Your task to perform on an android device: What's the weather today? Image 0: 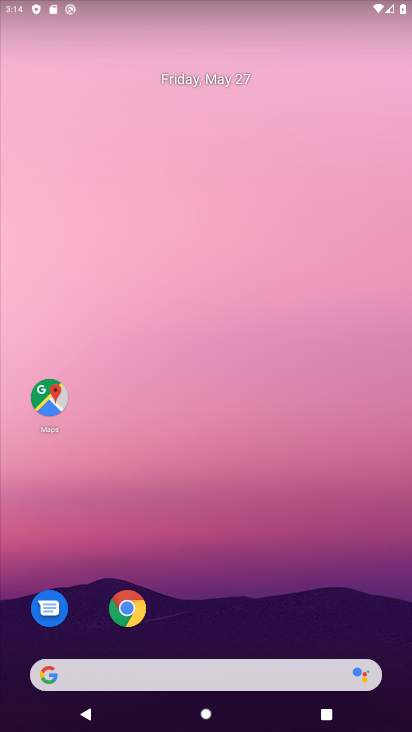
Step 0: drag from (213, 665) to (305, 270)
Your task to perform on an android device: What's the weather today? Image 1: 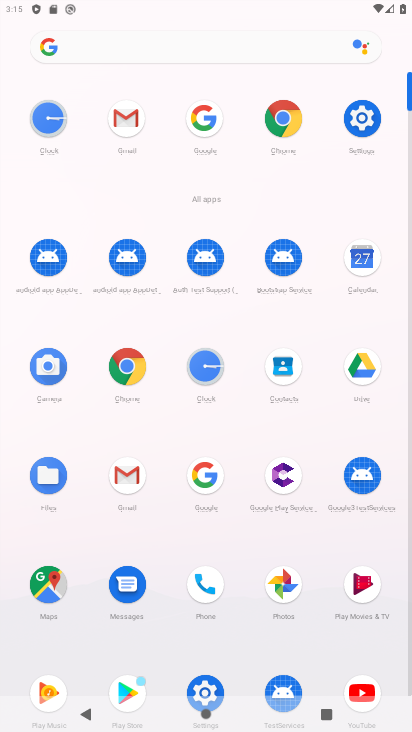
Step 1: click (209, 122)
Your task to perform on an android device: What's the weather today? Image 2: 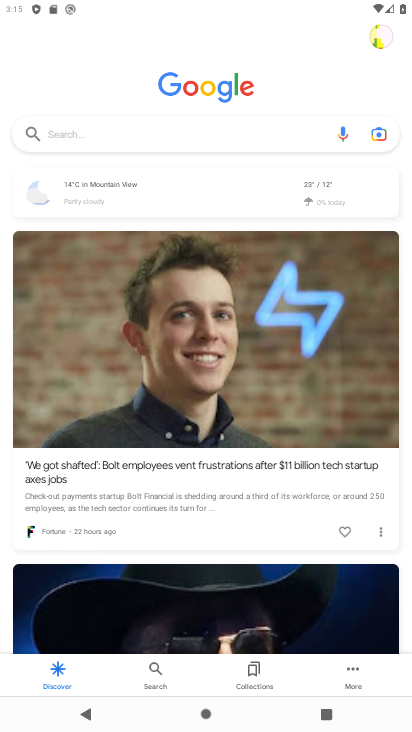
Step 2: click (129, 134)
Your task to perform on an android device: What's the weather today? Image 3: 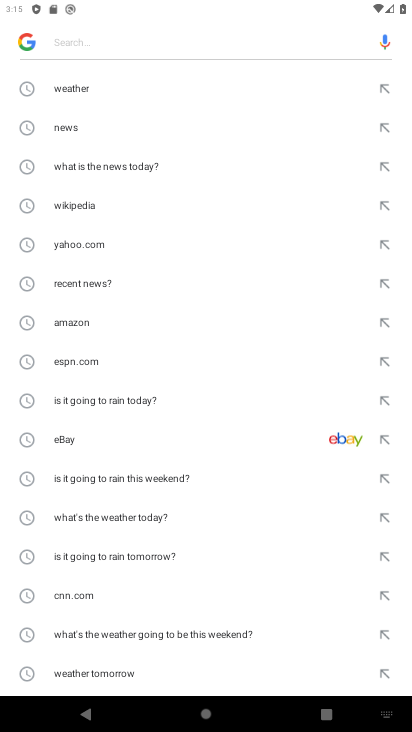
Step 3: click (108, 517)
Your task to perform on an android device: What's the weather today? Image 4: 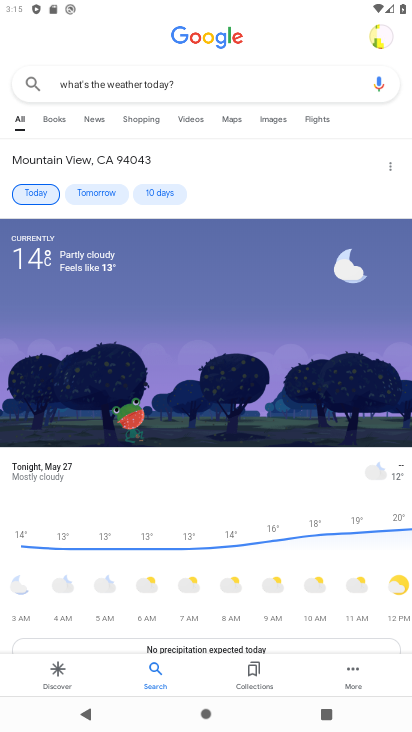
Step 4: task complete